Your task to perform on an android device: Go to battery settings Image 0: 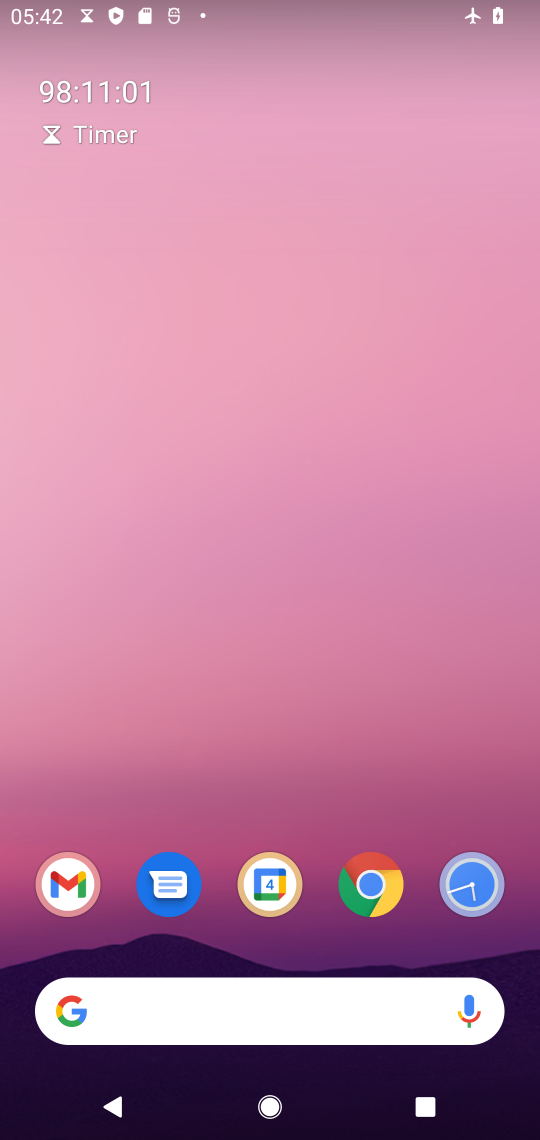
Step 0: drag from (144, 876) to (159, 190)
Your task to perform on an android device: Go to battery settings Image 1: 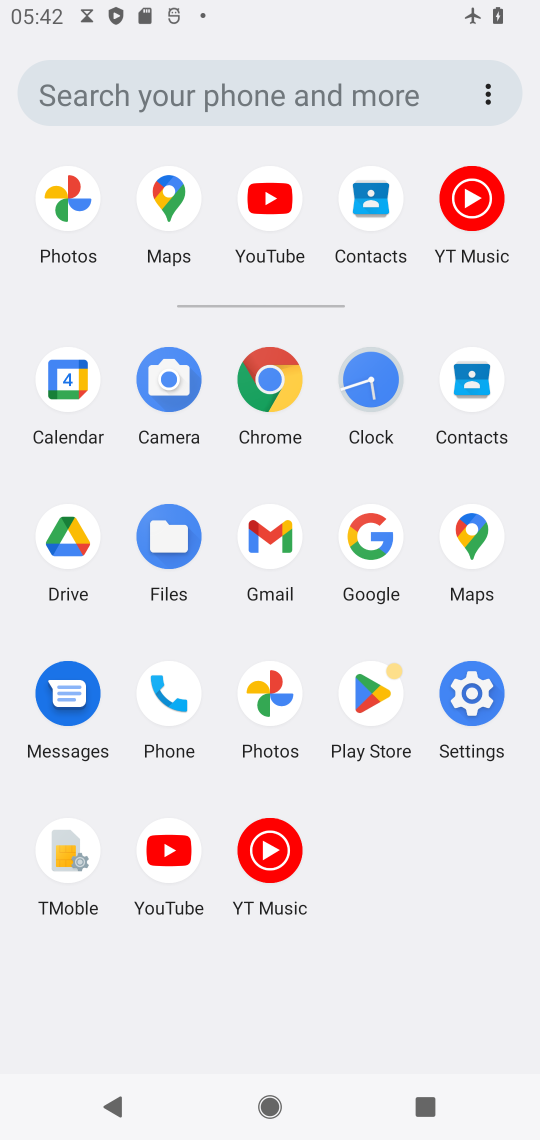
Step 1: click (457, 690)
Your task to perform on an android device: Go to battery settings Image 2: 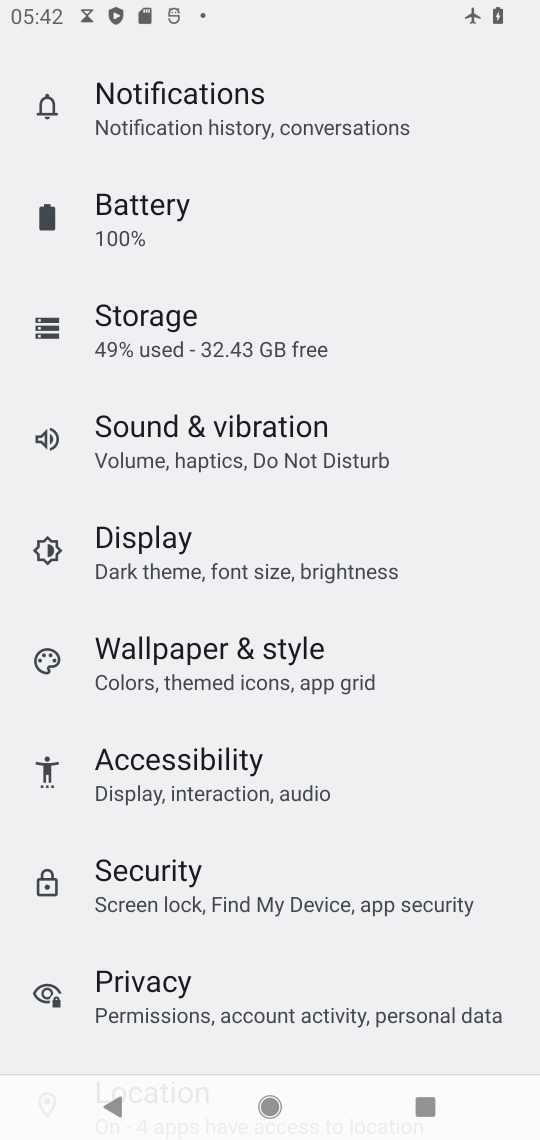
Step 2: click (181, 233)
Your task to perform on an android device: Go to battery settings Image 3: 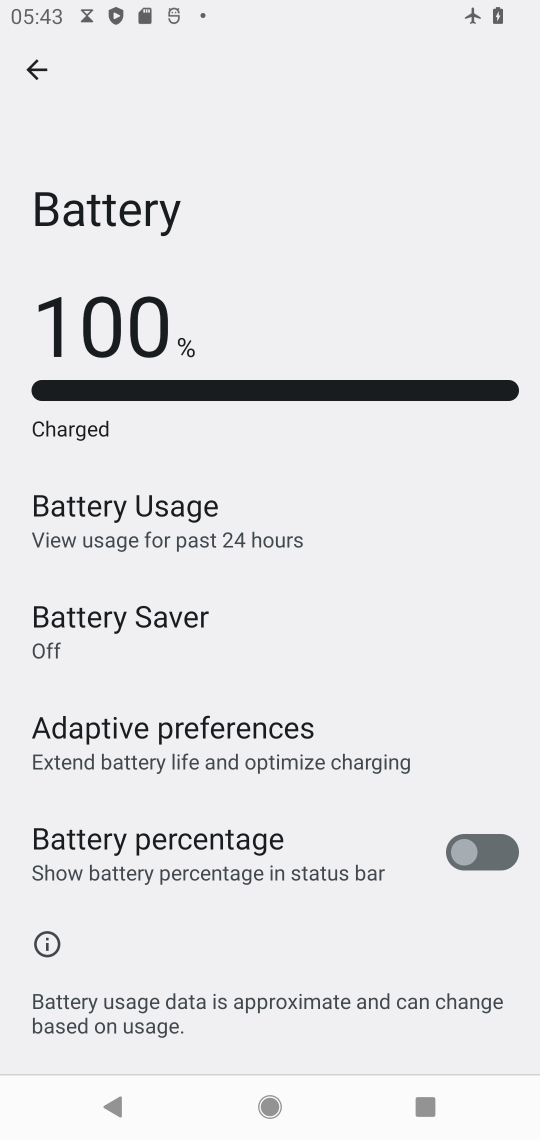
Step 3: task complete